Your task to perform on an android device: Open privacy settings Image 0: 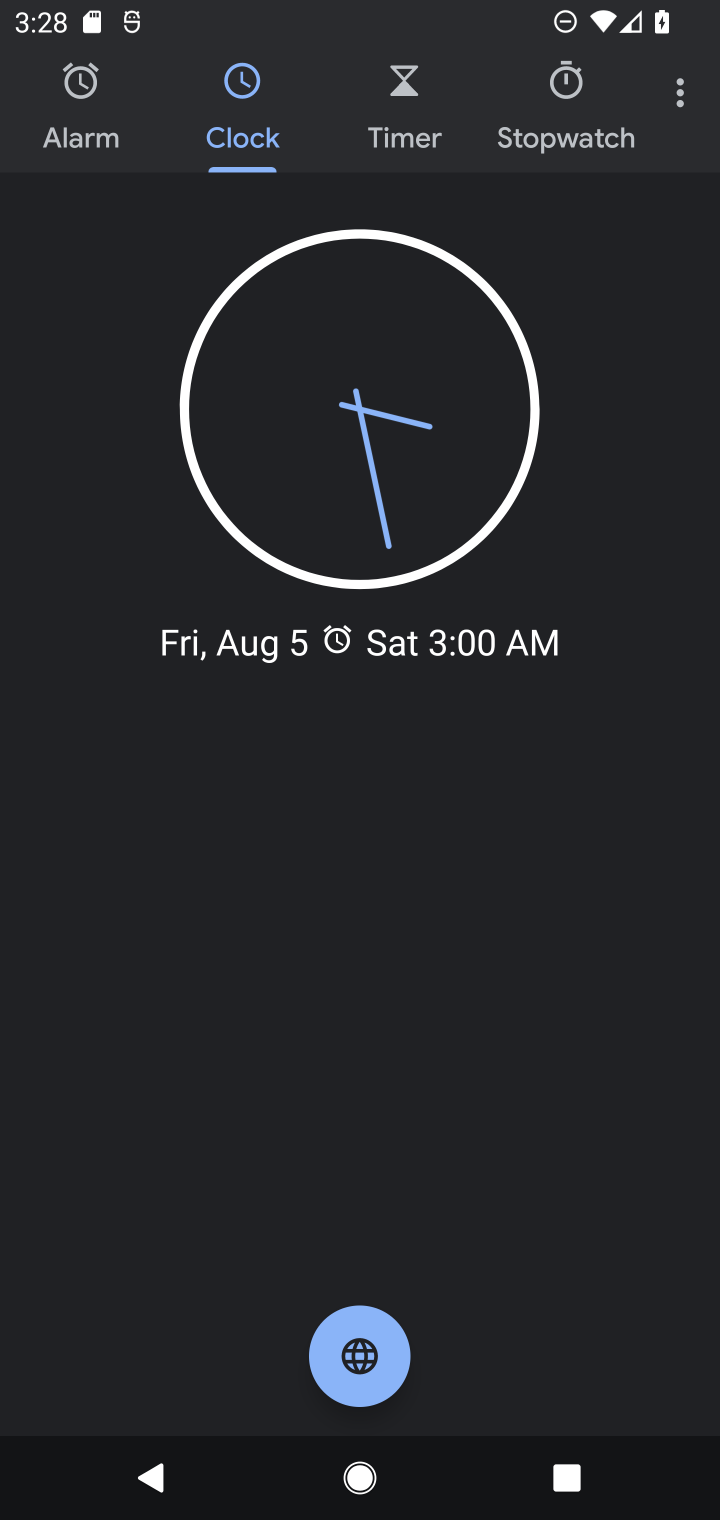
Step 0: press home button
Your task to perform on an android device: Open privacy settings Image 1: 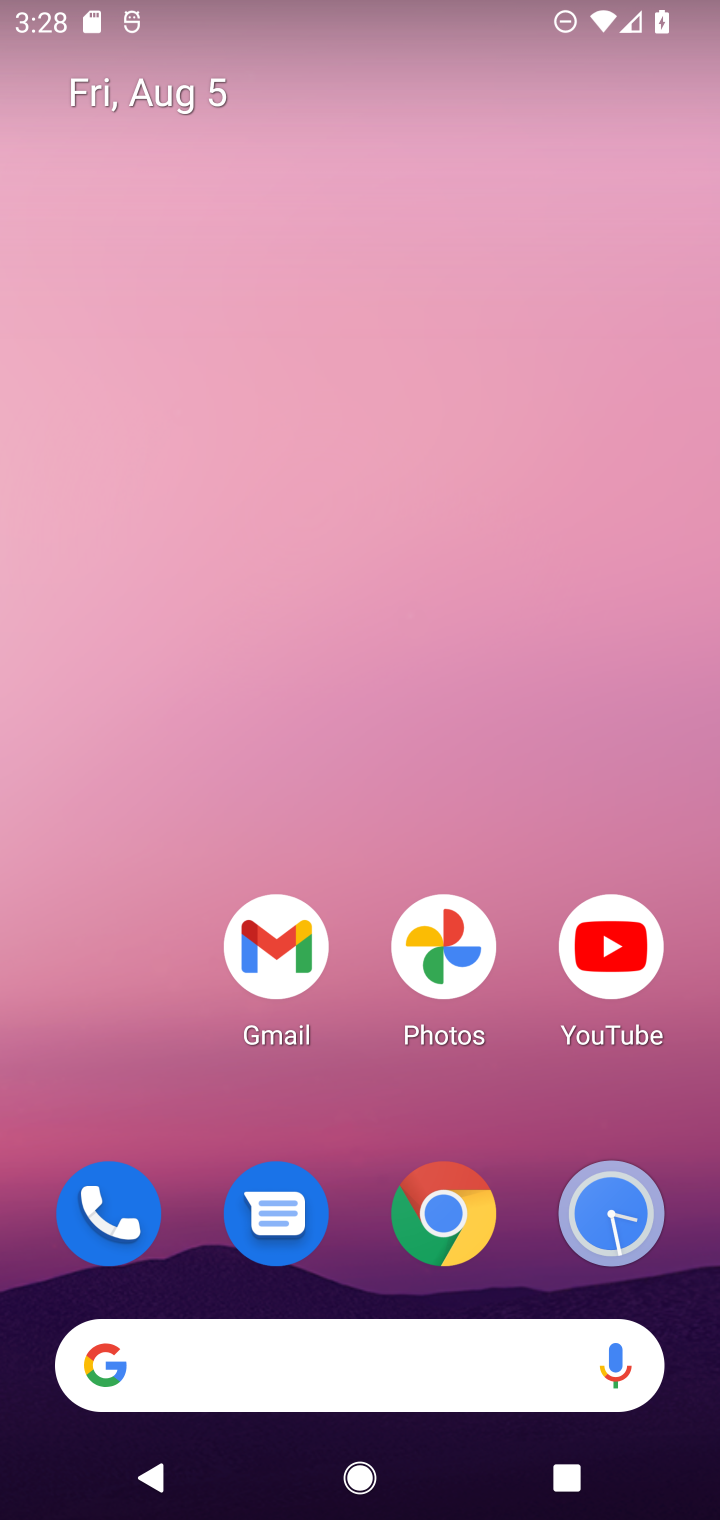
Step 1: drag from (140, 1085) to (228, 4)
Your task to perform on an android device: Open privacy settings Image 2: 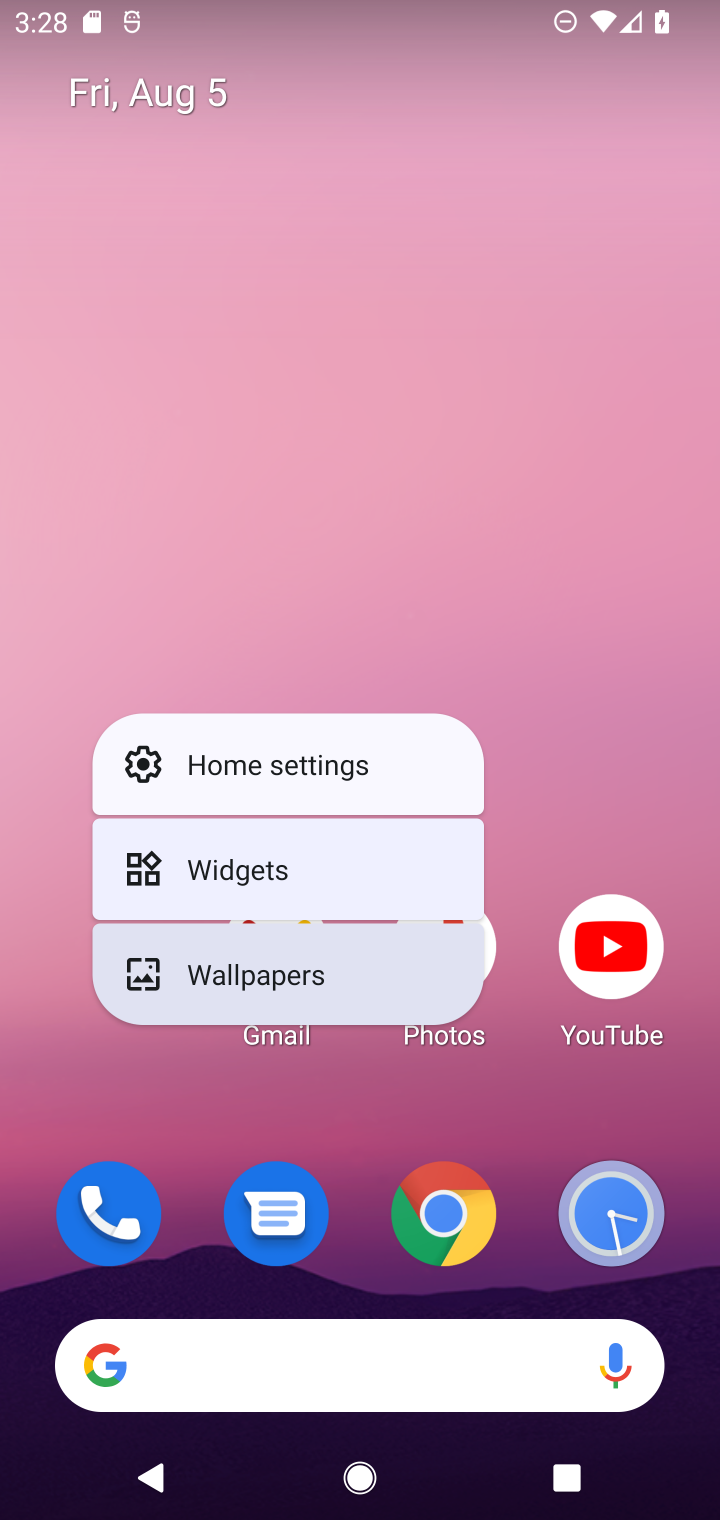
Step 2: click (371, 454)
Your task to perform on an android device: Open privacy settings Image 3: 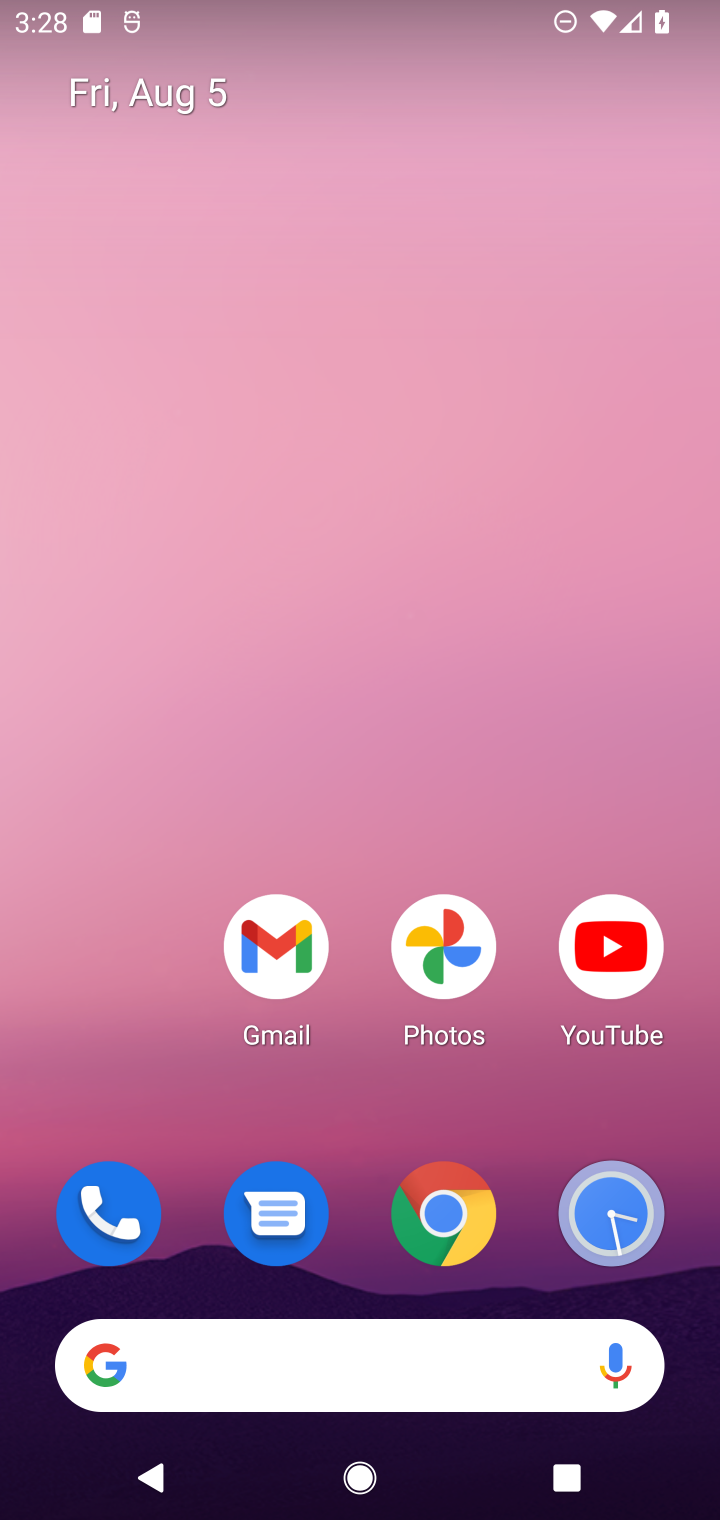
Step 3: drag from (127, 1052) to (164, 0)
Your task to perform on an android device: Open privacy settings Image 4: 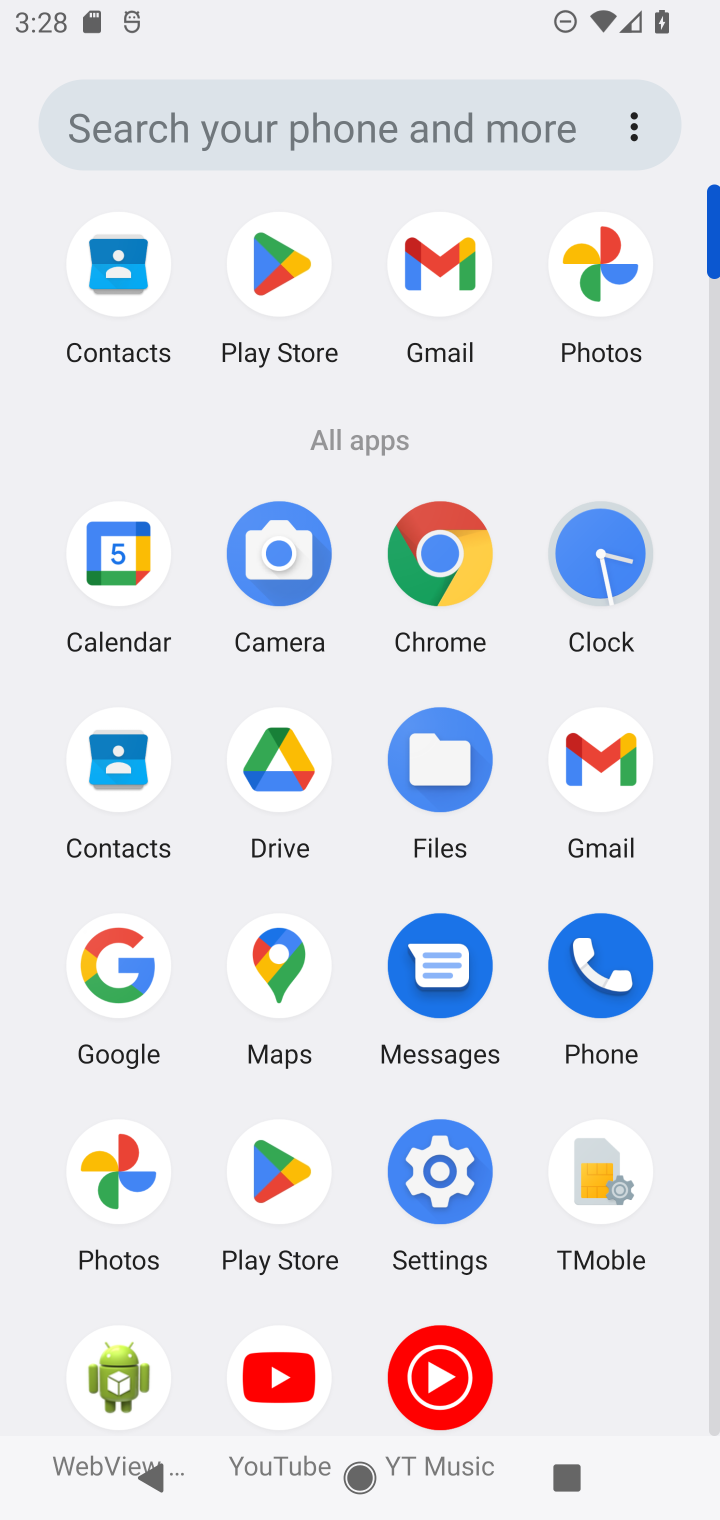
Step 4: click (437, 1177)
Your task to perform on an android device: Open privacy settings Image 5: 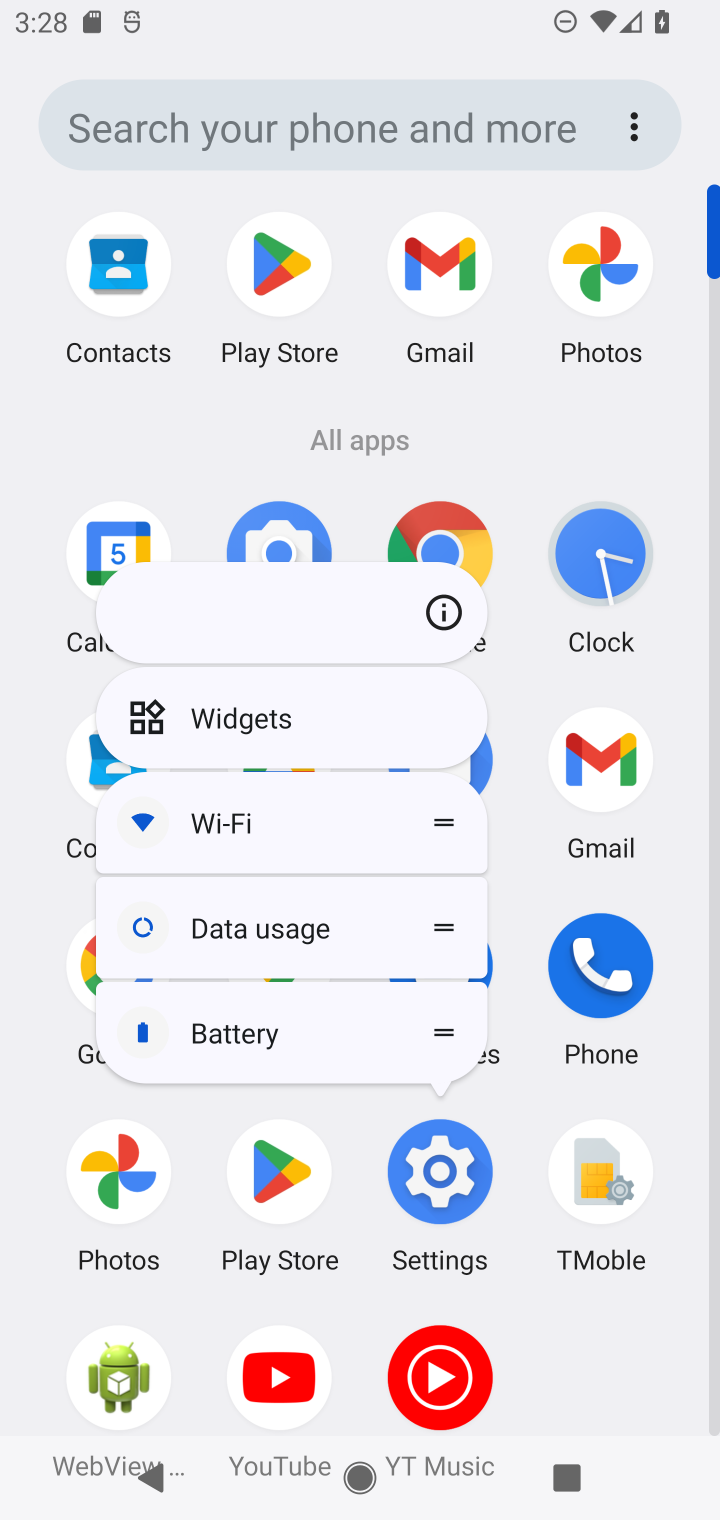
Step 5: click (437, 1174)
Your task to perform on an android device: Open privacy settings Image 6: 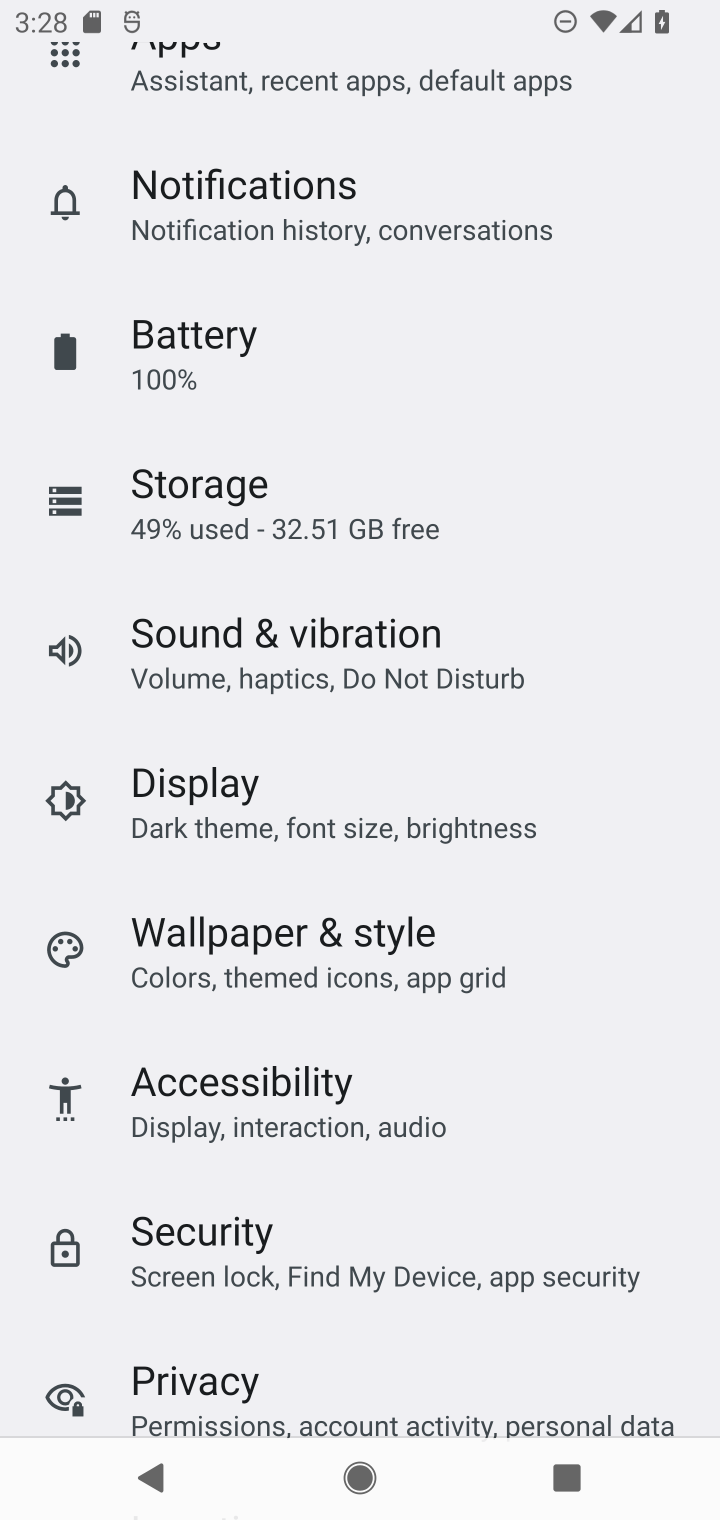
Step 6: click (410, 1391)
Your task to perform on an android device: Open privacy settings Image 7: 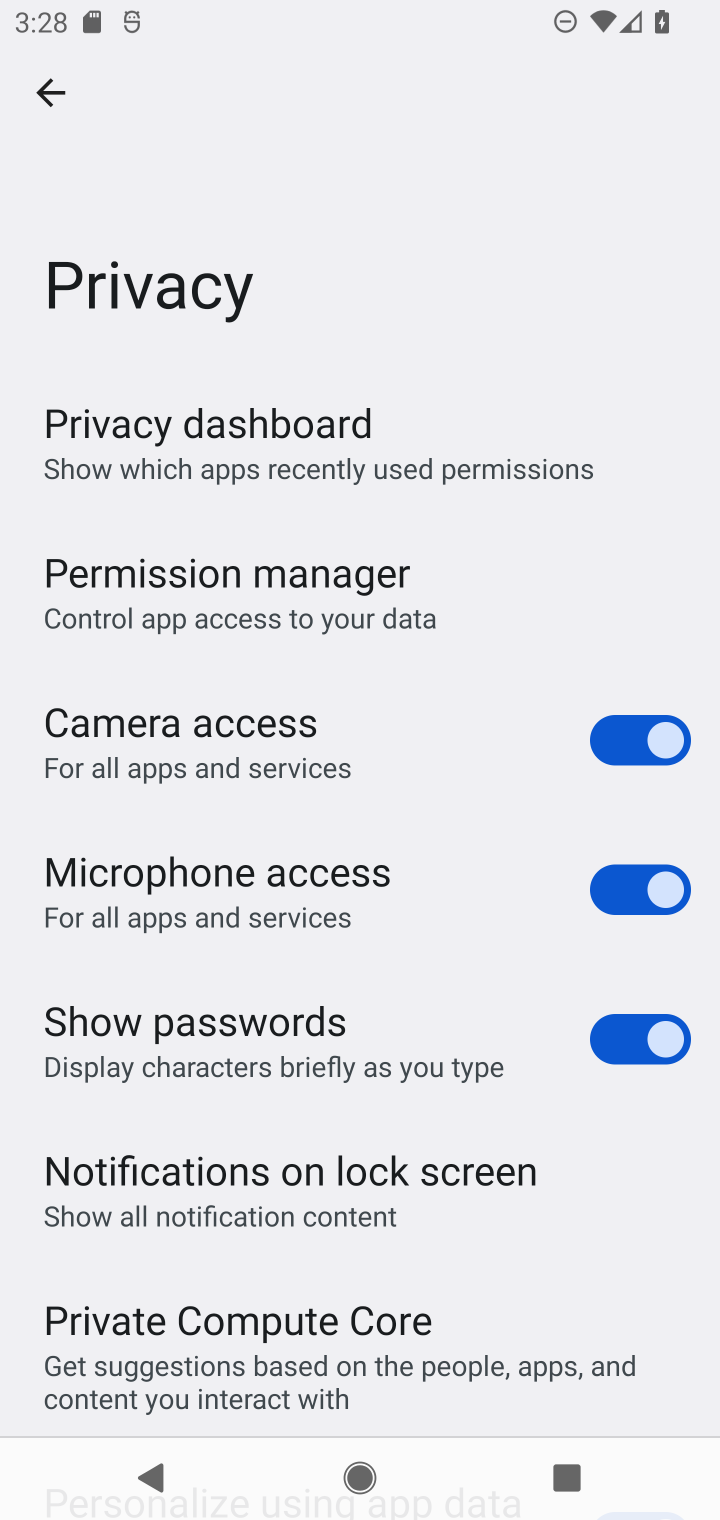
Step 7: task complete